Your task to perform on an android device: turn off notifications settings in the gmail app Image 0: 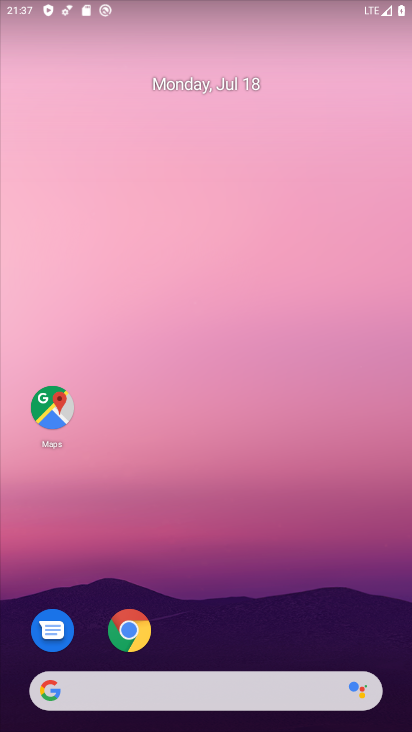
Step 0: drag from (213, 615) to (213, 105)
Your task to perform on an android device: turn off notifications settings in the gmail app Image 1: 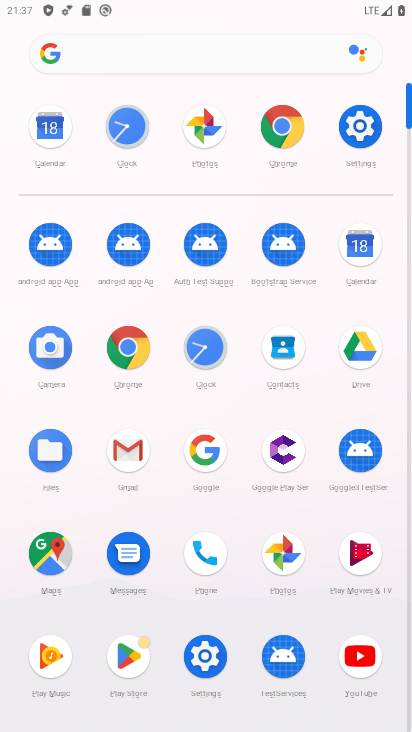
Step 1: click (138, 448)
Your task to perform on an android device: turn off notifications settings in the gmail app Image 2: 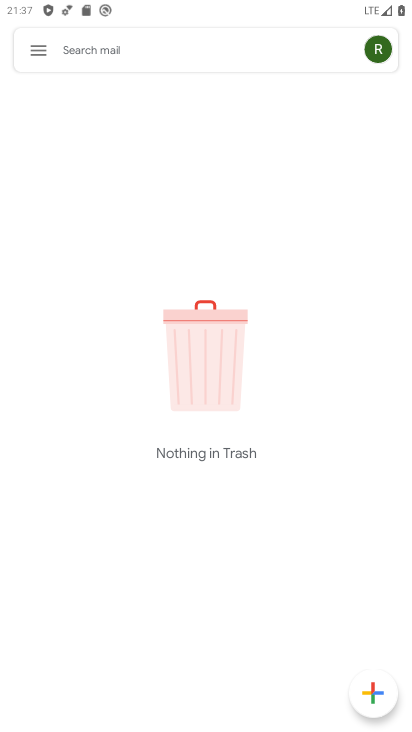
Step 2: click (36, 40)
Your task to perform on an android device: turn off notifications settings in the gmail app Image 3: 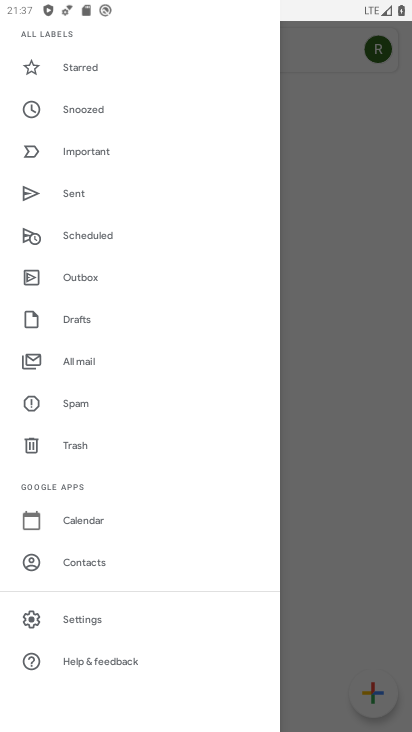
Step 3: click (96, 609)
Your task to perform on an android device: turn off notifications settings in the gmail app Image 4: 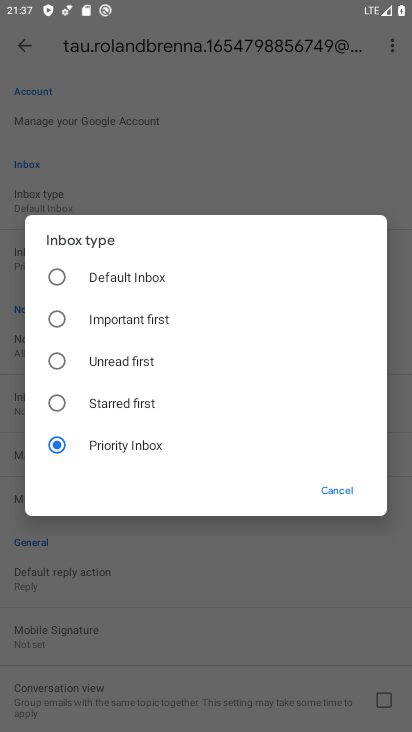
Step 4: click (133, 177)
Your task to perform on an android device: turn off notifications settings in the gmail app Image 5: 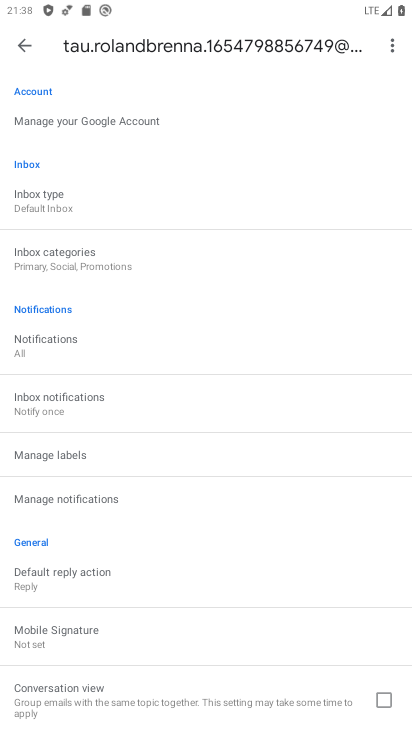
Step 5: click (104, 352)
Your task to perform on an android device: turn off notifications settings in the gmail app Image 6: 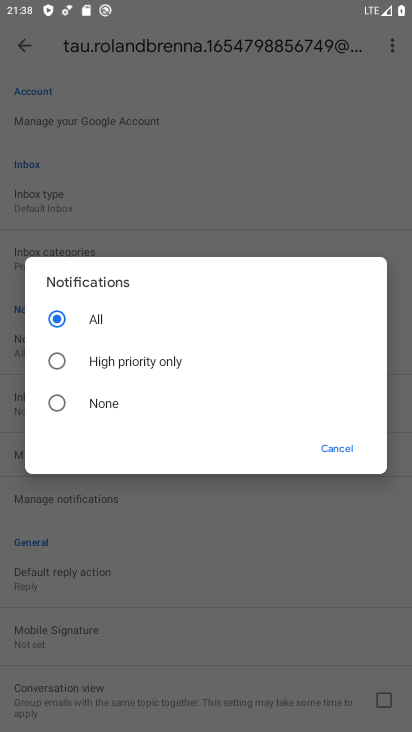
Step 6: click (102, 396)
Your task to perform on an android device: turn off notifications settings in the gmail app Image 7: 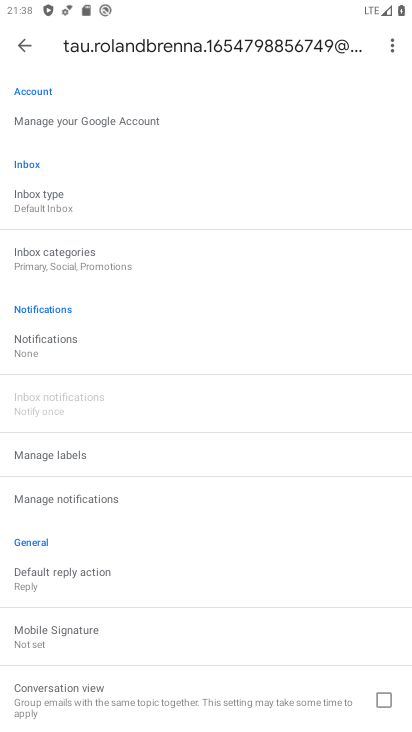
Step 7: task complete